Your task to perform on an android device: Turn off the flashlight Image 0: 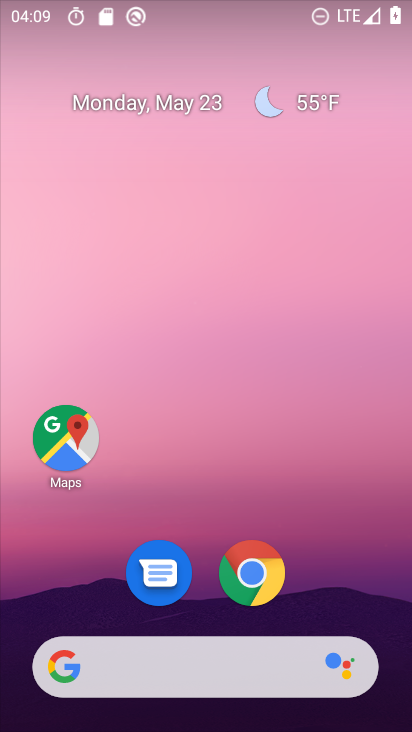
Step 0: drag from (352, 600) to (186, 10)
Your task to perform on an android device: Turn off the flashlight Image 1: 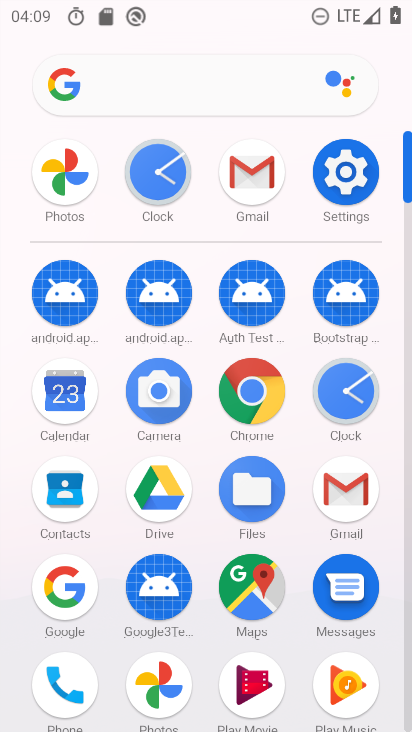
Step 1: click (341, 183)
Your task to perform on an android device: Turn off the flashlight Image 2: 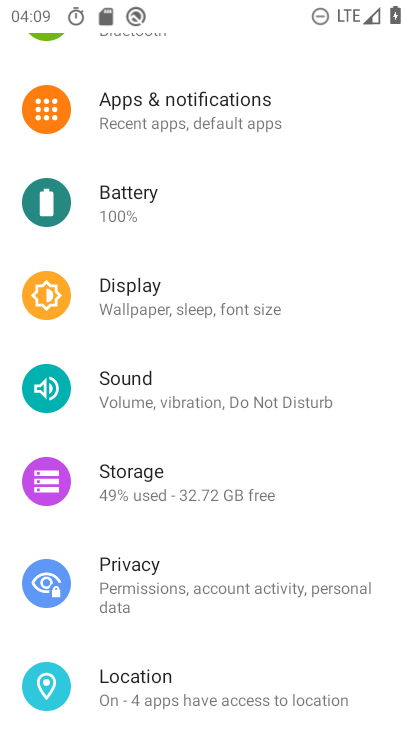
Step 2: click (227, 115)
Your task to perform on an android device: Turn off the flashlight Image 3: 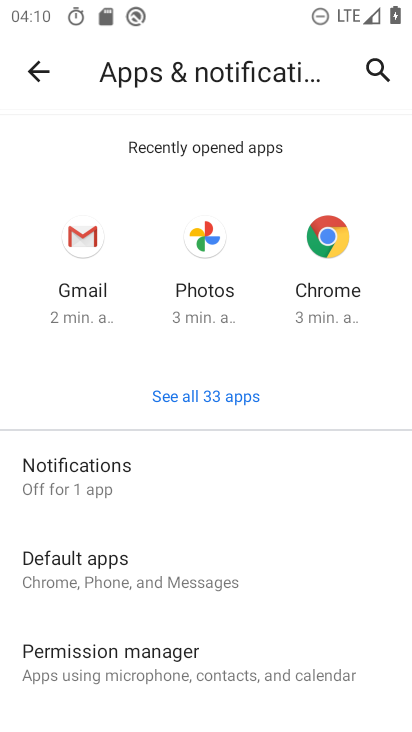
Step 3: drag from (328, 633) to (287, 201)
Your task to perform on an android device: Turn off the flashlight Image 4: 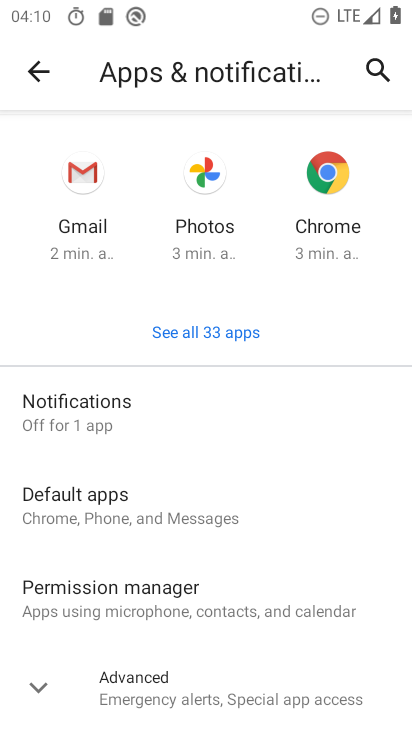
Step 4: click (216, 694)
Your task to perform on an android device: Turn off the flashlight Image 5: 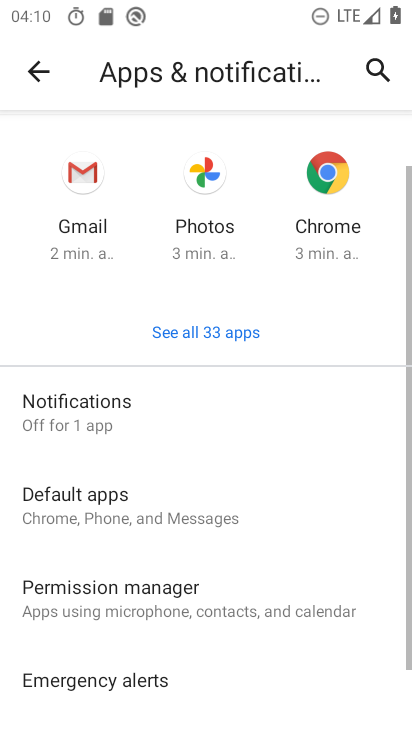
Step 5: drag from (267, 611) to (257, 277)
Your task to perform on an android device: Turn off the flashlight Image 6: 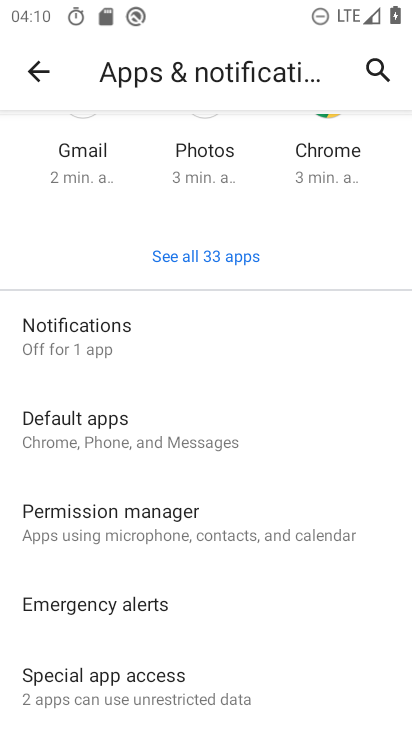
Step 6: click (222, 686)
Your task to perform on an android device: Turn off the flashlight Image 7: 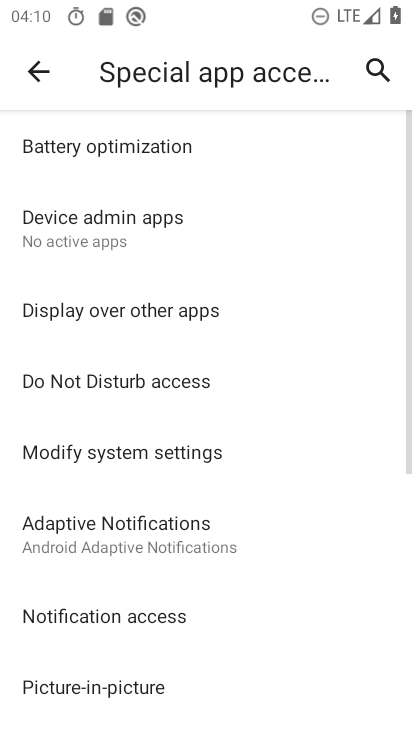
Step 7: task complete